Your task to perform on an android device: Go to internet settings Image 0: 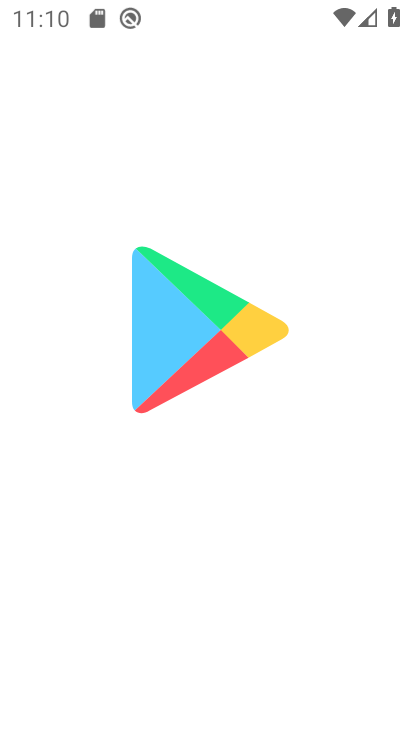
Step 0: click (178, 653)
Your task to perform on an android device: Go to internet settings Image 1: 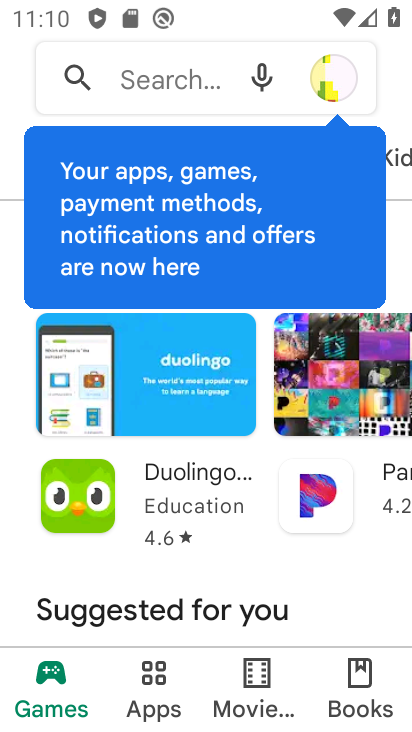
Step 1: press home button
Your task to perform on an android device: Go to internet settings Image 2: 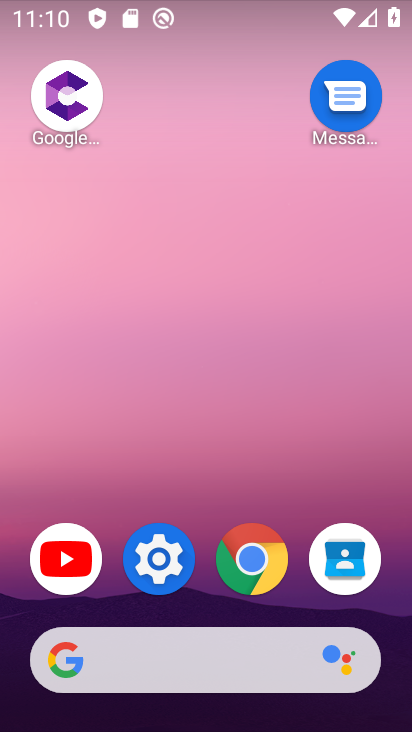
Step 2: click (150, 562)
Your task to perform on an android device: Go to internet settings Image 3: 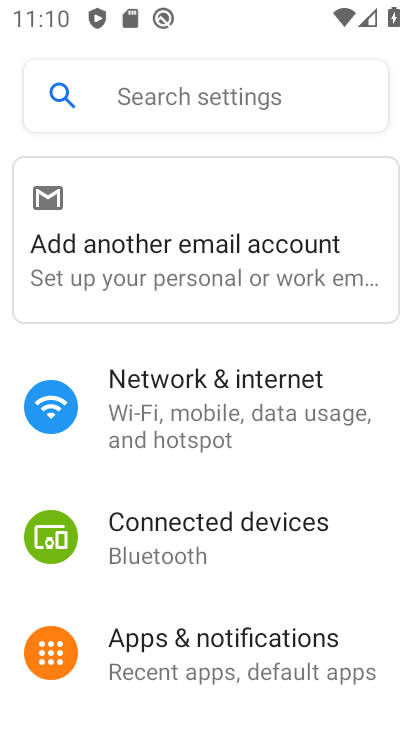
Step 3: click (189, 383)
Your task to perform on an android device: Go to internet settings Image 4: 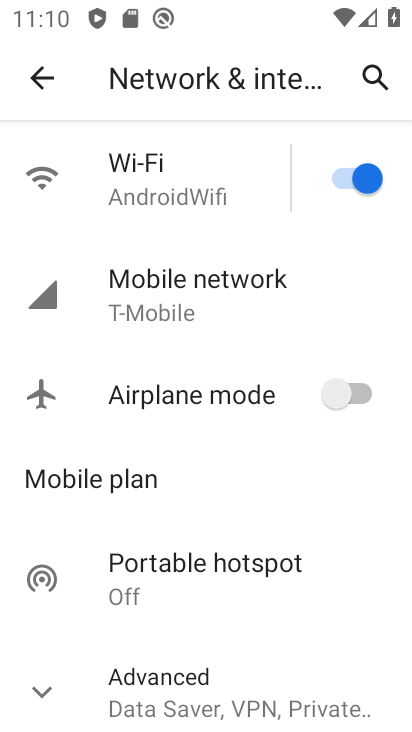
Step 4: task complete